Your task to perform on an android device: Open the Play Movies app and select the watchlist tab. Image 0: 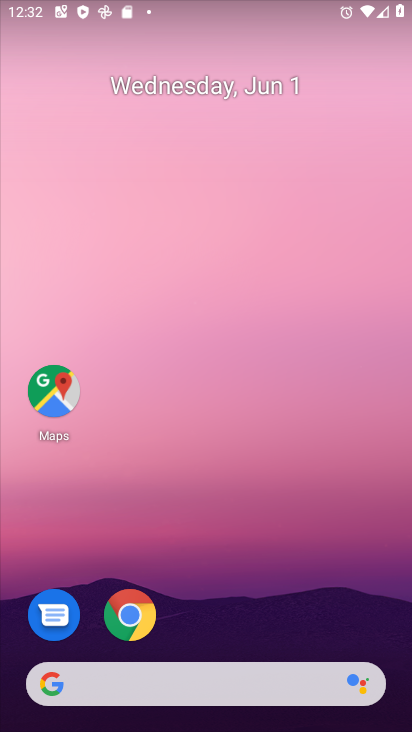
Step 0: drag from (323, 637) to (287, 49)
Your task to perform on an android device: Open the Play Movies app and select the watchlist tab. Image 1: 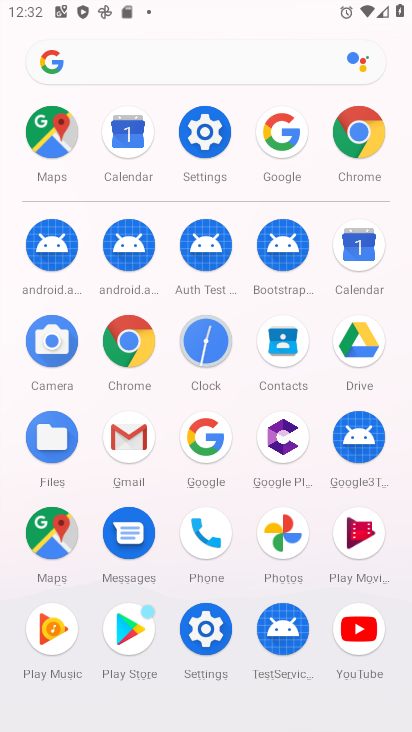
Step 1: click (360, 535)
Your task to perform on an android device: Open the Play Movies app and select the watchlist tab. Image 2: 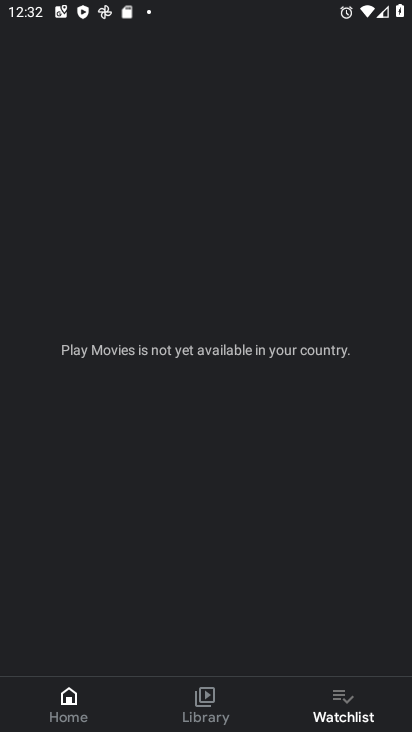
Step 2: task complete